Your task to perform on an android device: Go to wifi settings Image 0: 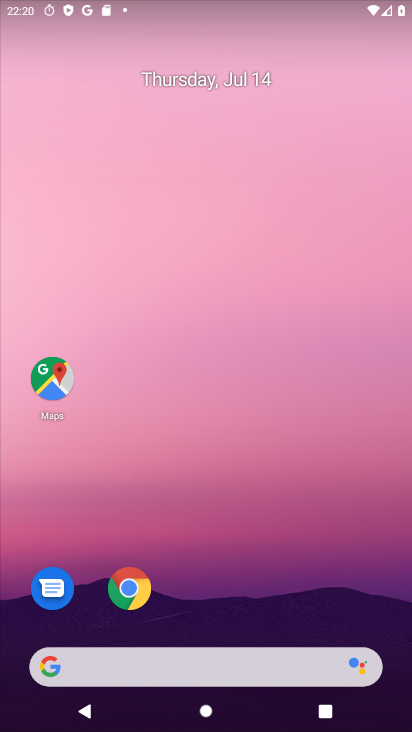
Step 0: drag from (244, 622) to (282, 101)
Your task to perform on an android device: Go to wifi settings Image 1: 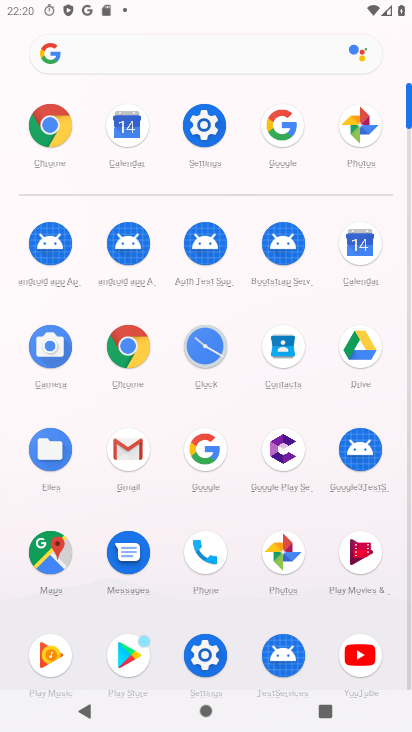
Step 1: click (207, 115)
Your task to perform on an android device: Go to wifi settings Image 2: 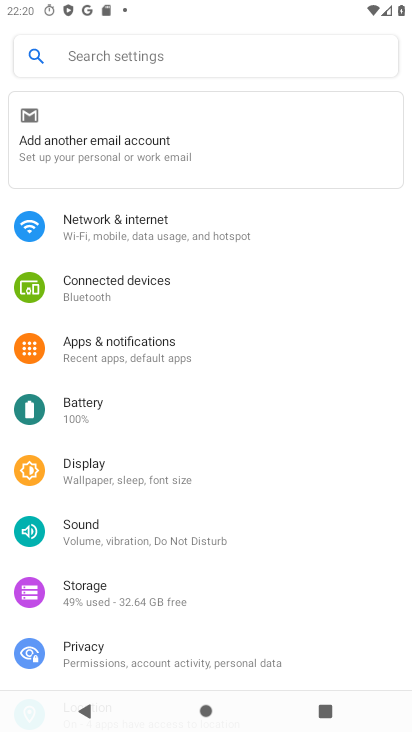
Step 2: click (137, 219)
Your task to perform on an android device: Go to wifi settings Image 3: 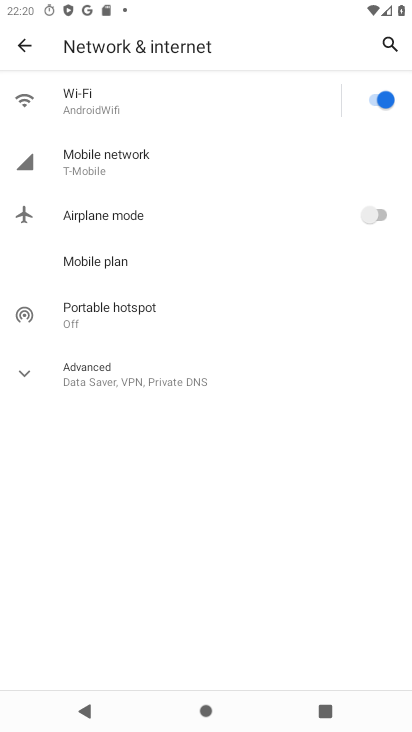
Step 3: click (128, 73)
Your task to perform on an android device: Go to wifi settings Image 4: 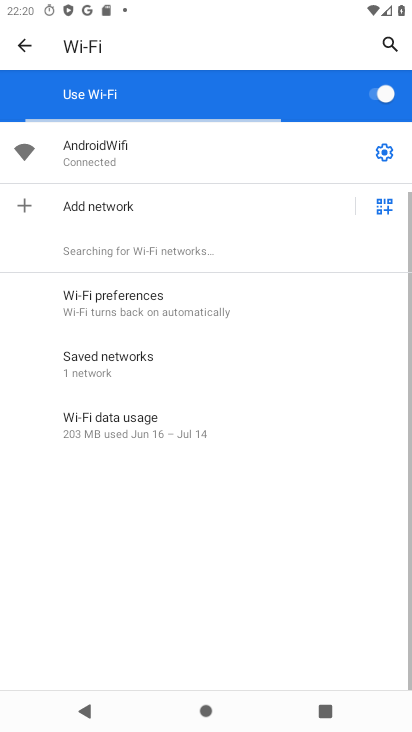
Step 4: click (171, 152)
Your task to perform on an android device: Go to wifi settings Image 5: 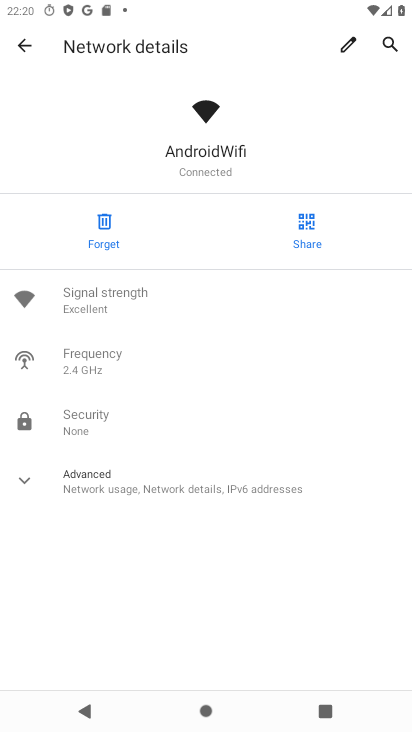
Step 5: task complete